Your task to perform on an android device: Open Wikipedia Image 0: 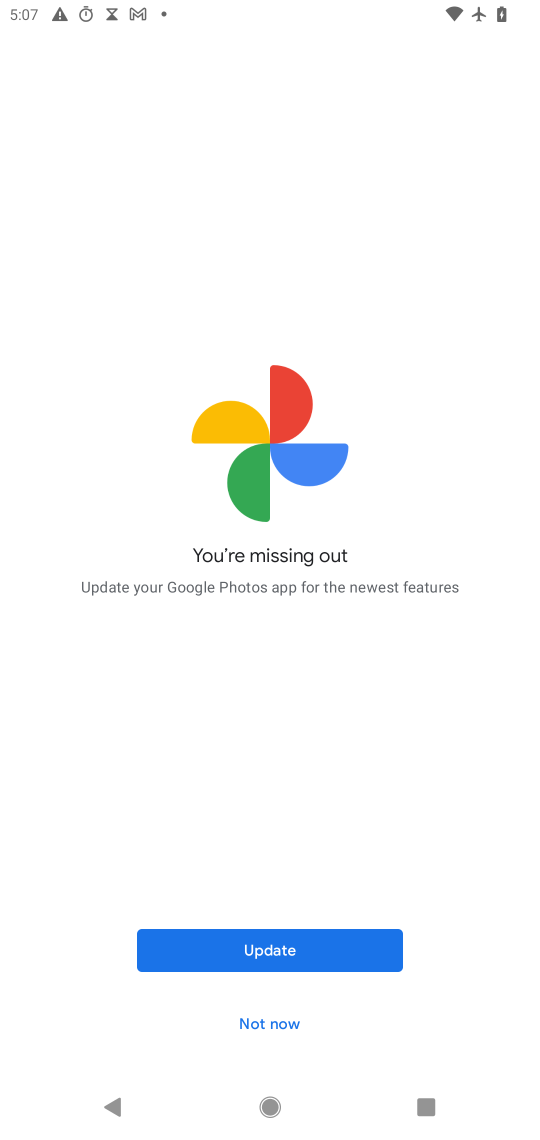
Step 0: press home button
Your task to perform on an android device: Open Wikipedia Image 1: 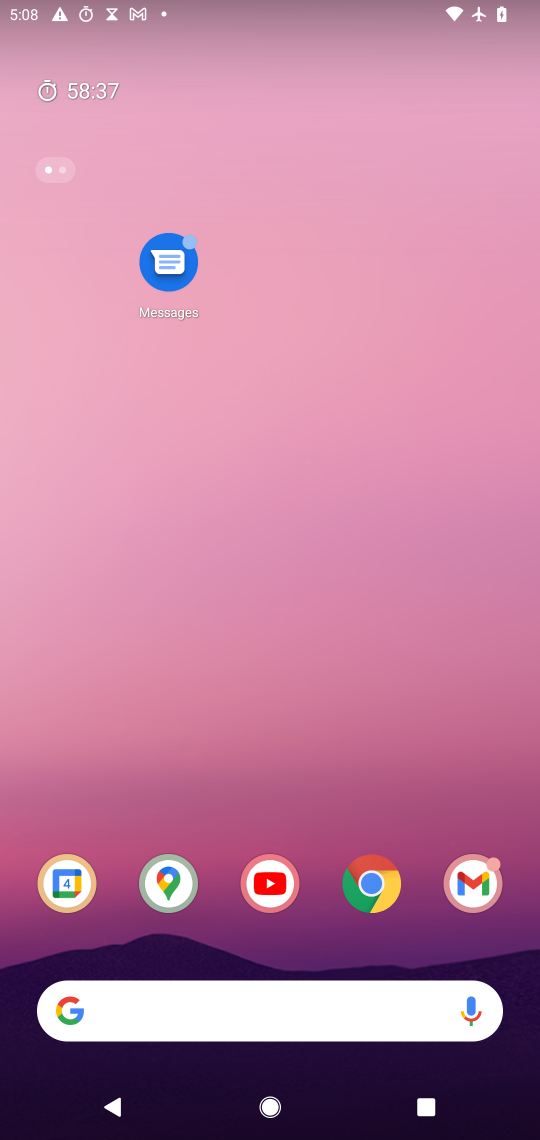
Step 1: click (370, 890)
Your task to perform on an android device: Open Wikipedia Image 2: 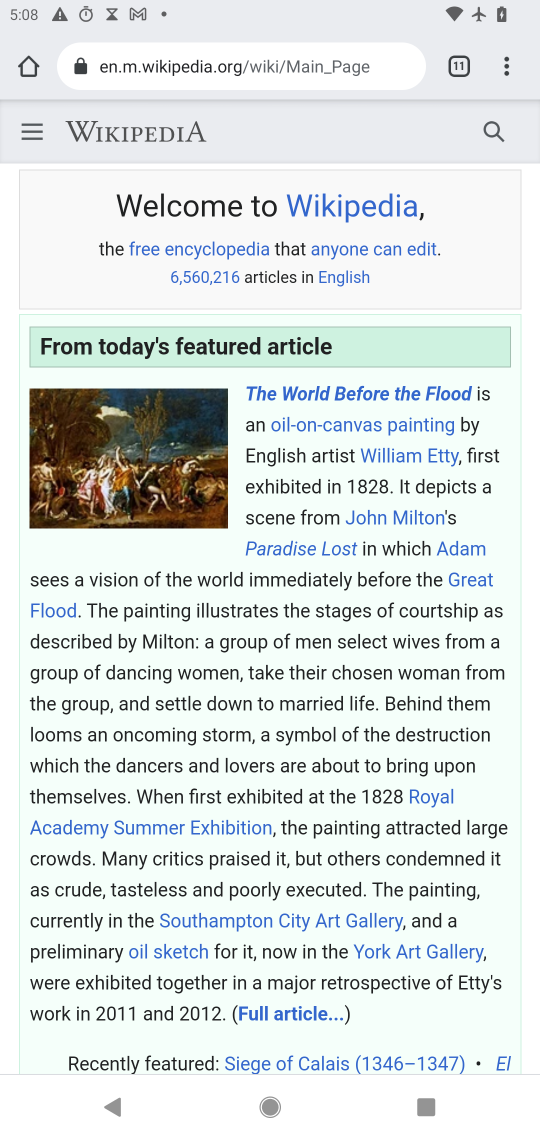
Step 2: task complete